Your task to perform on an android device: move a message to another label in the gmail app Image 0: 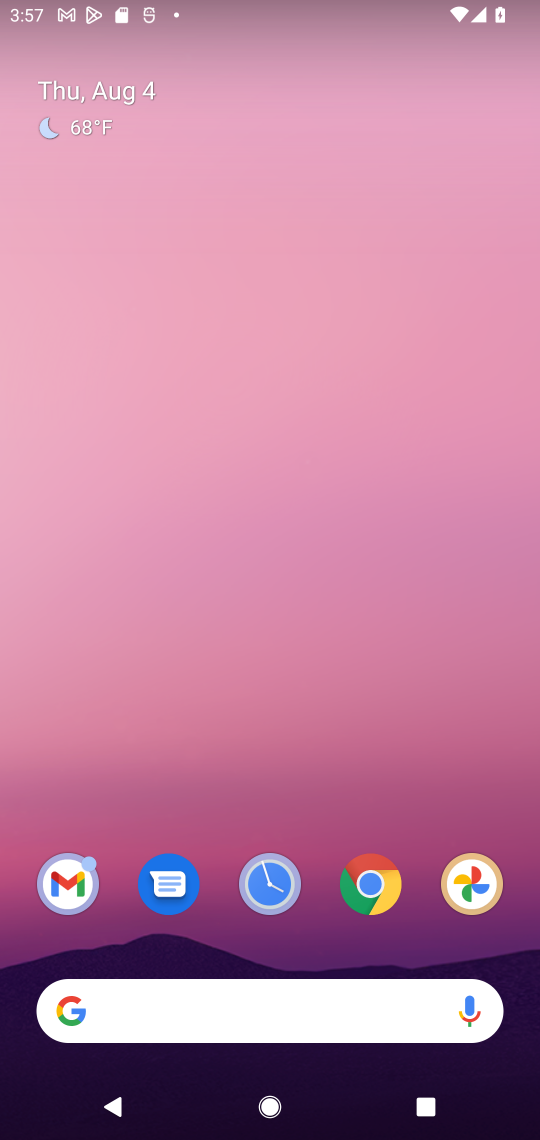
Step 0: click (67, 905)
Your task to perform on an android device: move a message to another label in the gmail app Image 1: 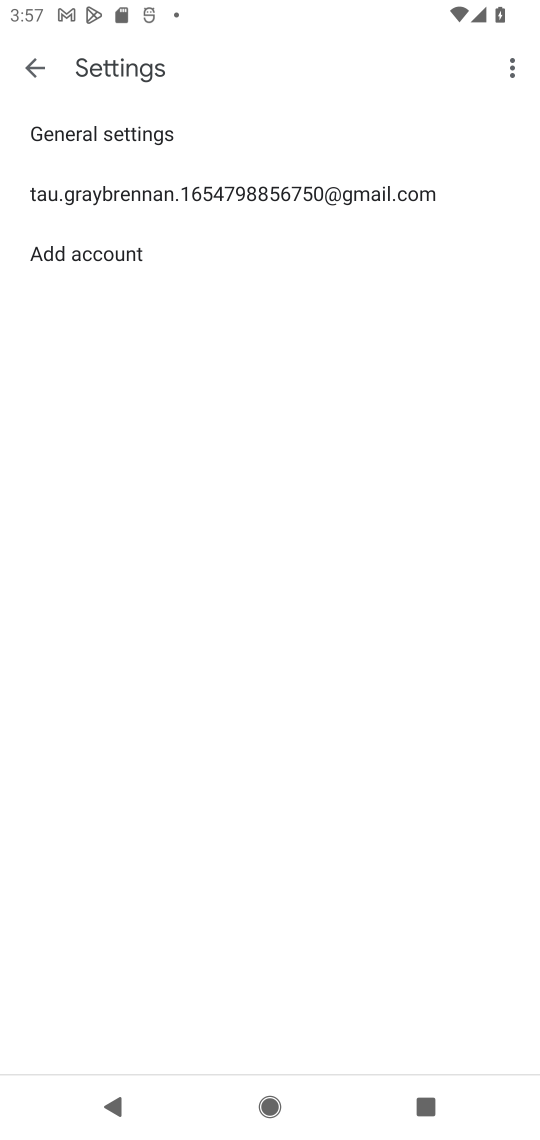
Step 1: click (29, 71)
Your task to perform on an android device: move a message to another label in the gmail app Image 2: 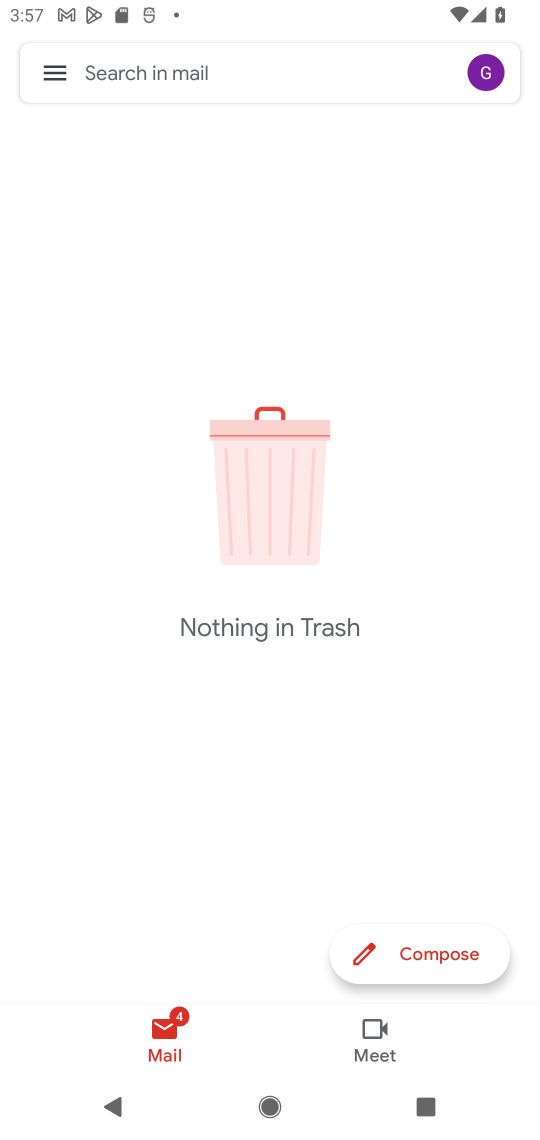
Step 2: click (38, 71)
Your task to perform on an android device: move a message to another label in the gmail app Image 3: 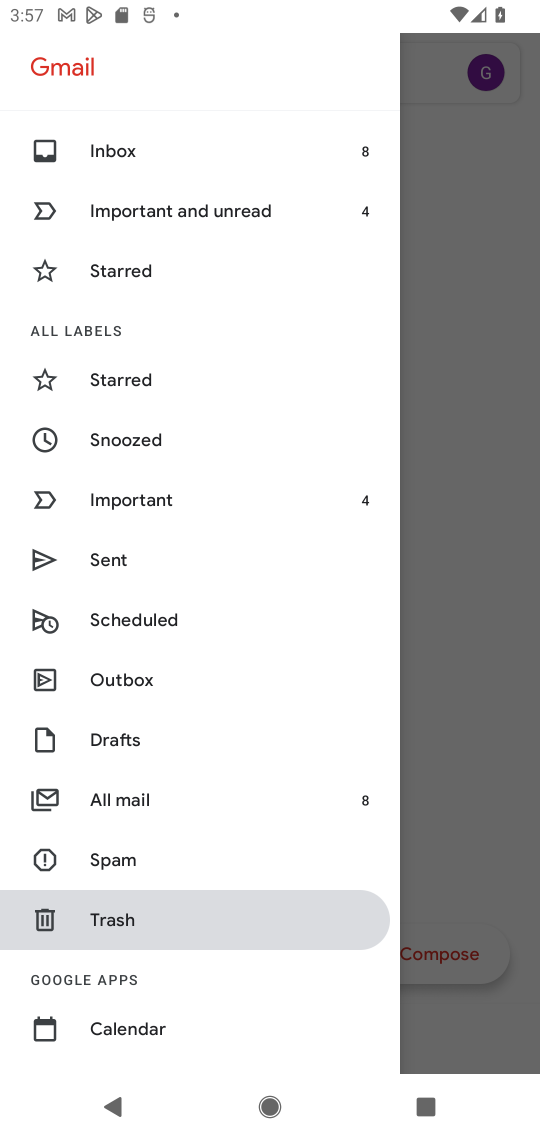
Step 3: task complete